Your task to perform on an android device: turn off javascript in the chrome app Image 0: 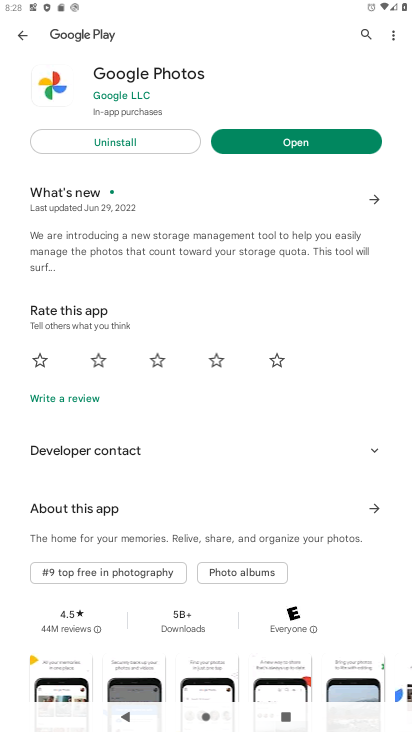
Step 0: press home button
Your task to perform on an android device: turn off javascript in the chrome app Image 1: 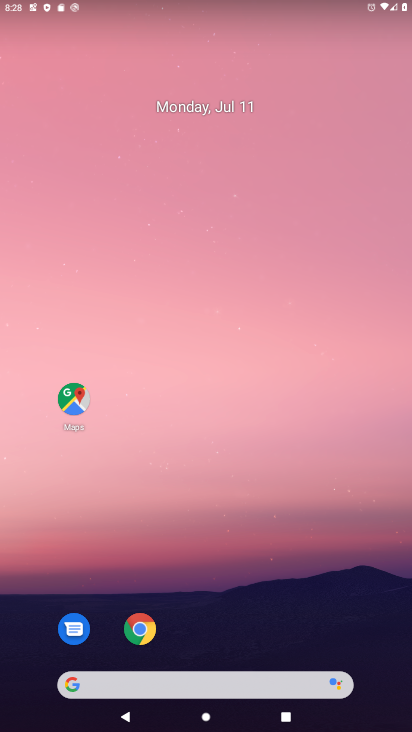
Step 1: click (144, 629)
Your task to perform on an android device: turn off javascript in the chrome app Image 2: 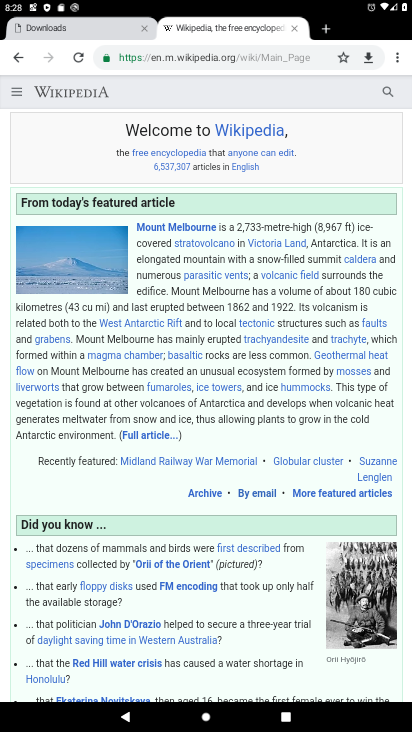
Step 2: click (397, 58)
Your task to perform on an android device: turn off javascript in the chrome app Image 3: 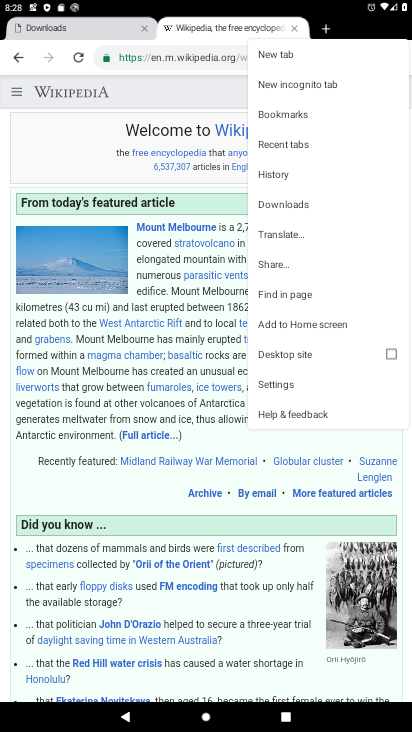
Step 3: click (309, 384)
Your task to perform on an android device: turn off javascript in the chrome app Image 4: 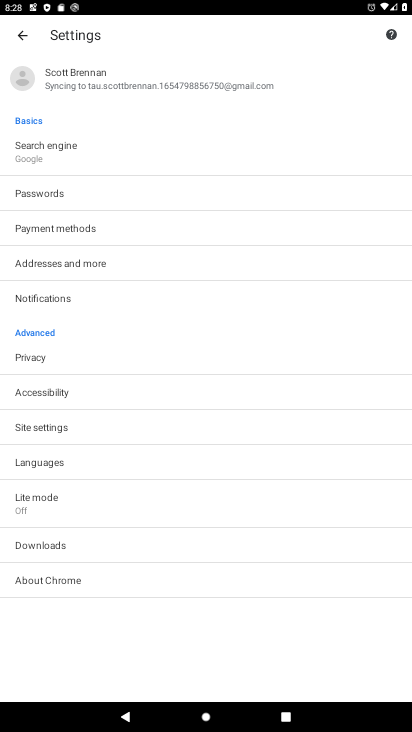
Step 4: click (52, 430)
Your task to perform on an android device: turn off javascript in the chrome app Image 5: 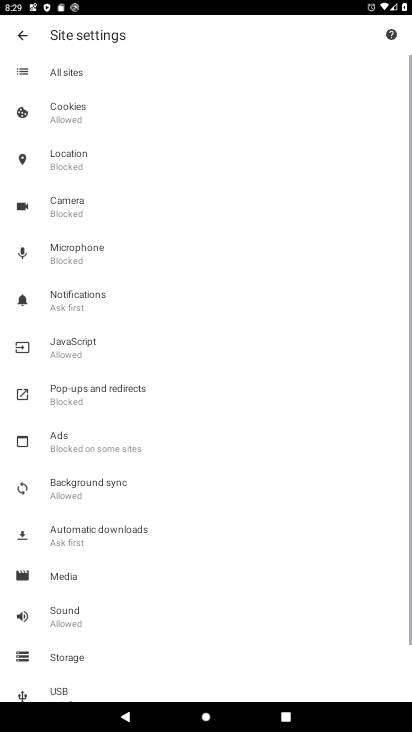
Step 5: click (70, 335)
Your task to perform on an android device: turn off javascript in the chrome app Image 6: 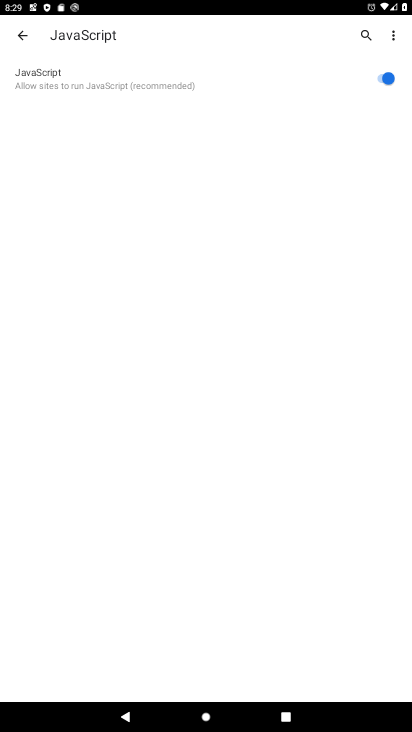
Step 6: click (387, 77)
Your task to perform on an android device: turn off javascript in the chrome app Image 7: 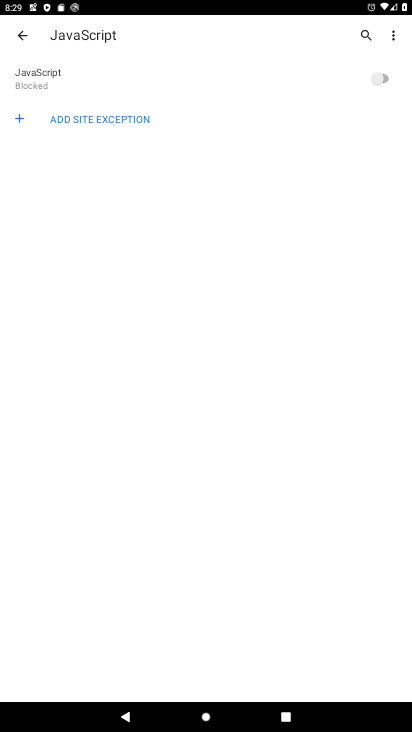
Step 7: task complete